Your task to perform on an android device: find snoozed emails in the gmail app Image 0: 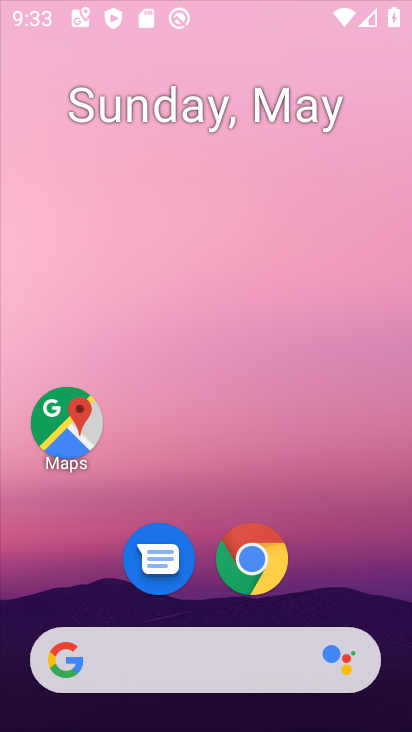
Step 0: press home button
Your task to perform on an android device: find snoozed emails in the gmail app Image 1: 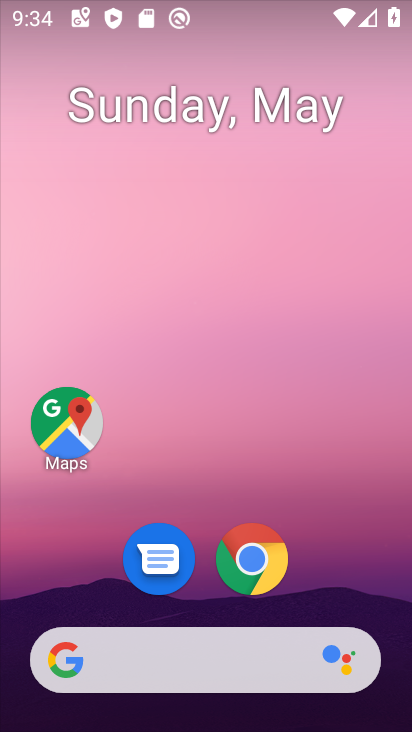
Step 1: drag from (343, 611) to (283, 114)
Your task to perform on an android device: find snoozed emails in the gmail app Image 2: 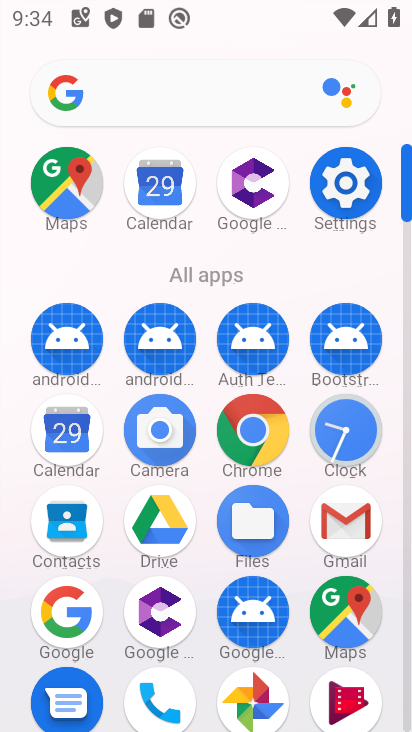
Step 2: click (340, 523)
Your task to perform on an android device: find snoozed emails in the gmail app Image 3: 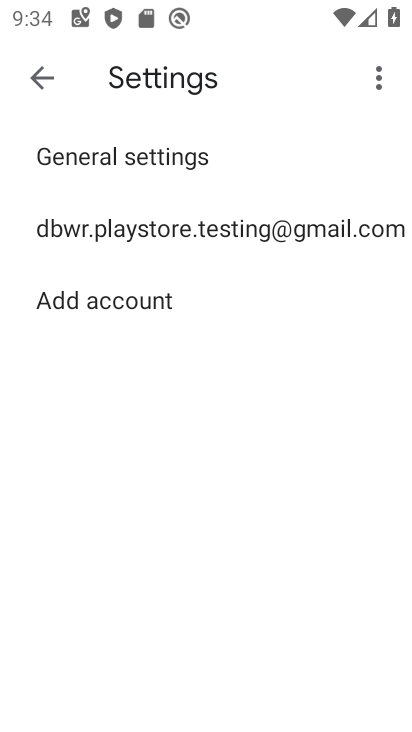
Step 3: click (40, 75)
Your task to perform on an android device: find snoozed emails in the gmail app Image 4: 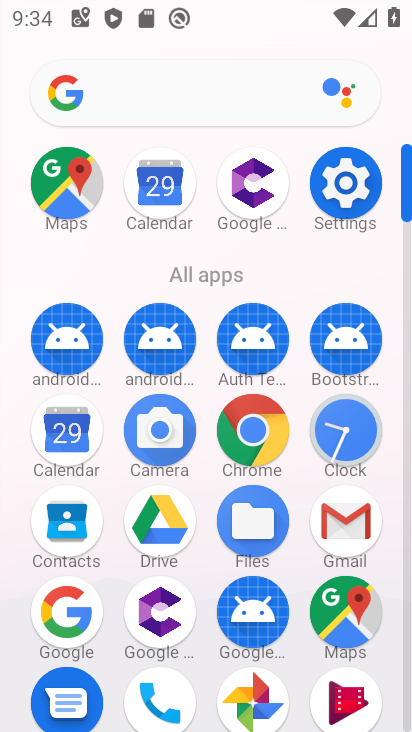
Step 4: click (353, 514)
Your task to perform on an android device: find snoozed emails in the gmail app Image 5: 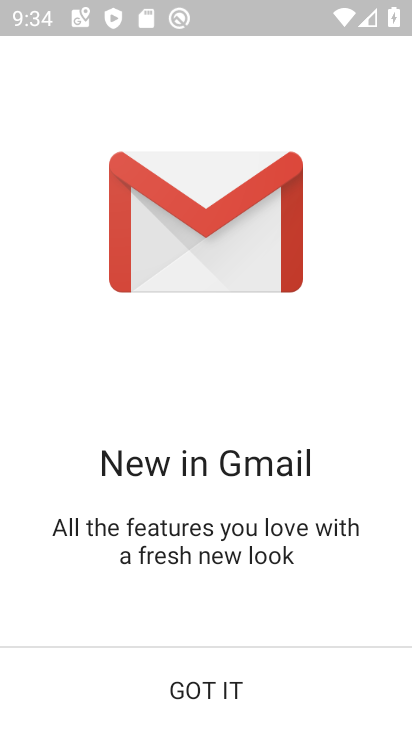
Step 5: click (173, 688)
Your task to perform on an android device: find snoozed emails in the gmail app Image 6: 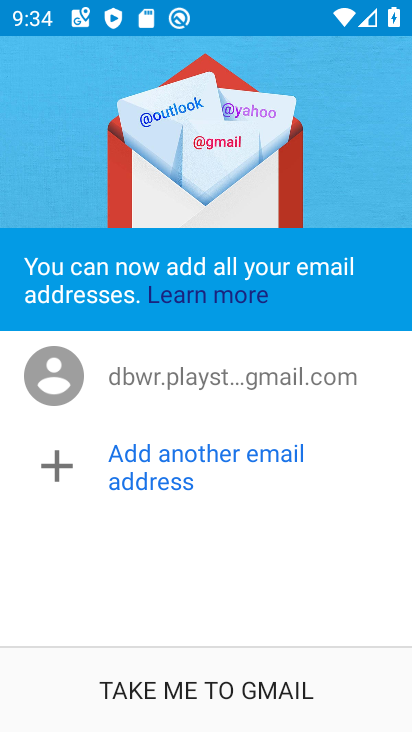
Step 6: click (240, 684)
Your task to perform on an android device: find snoozed emails in the gmail app Image 7: 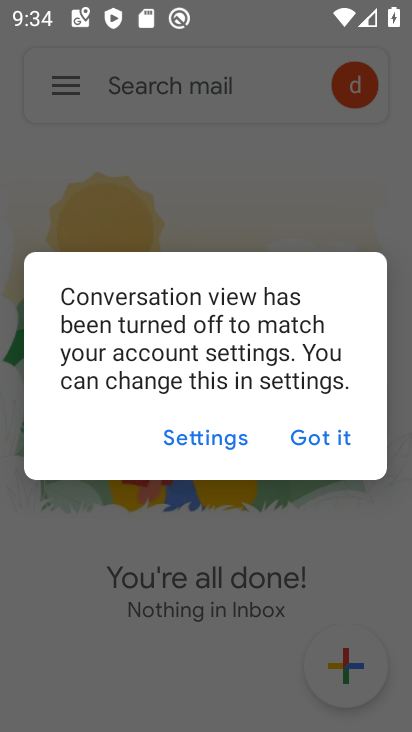
Step 7: click (337, 447)
Your task to perform on an android device: find snoozed emails in the gmail app Image 8: 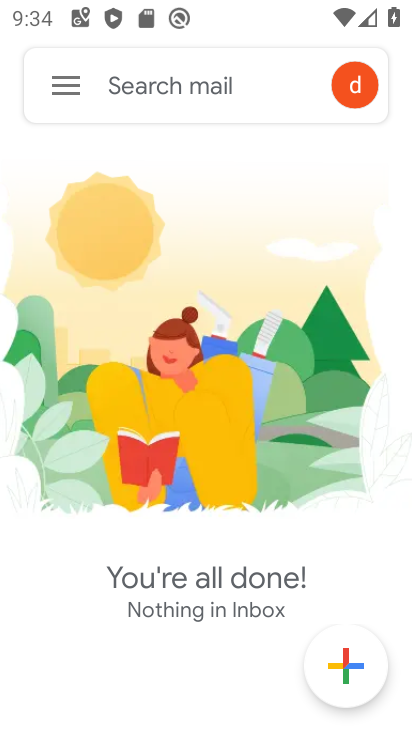
Step 8: click (54, 89)
Your task to perform on an android device: find snoozed emails in the gmail app Image 9: 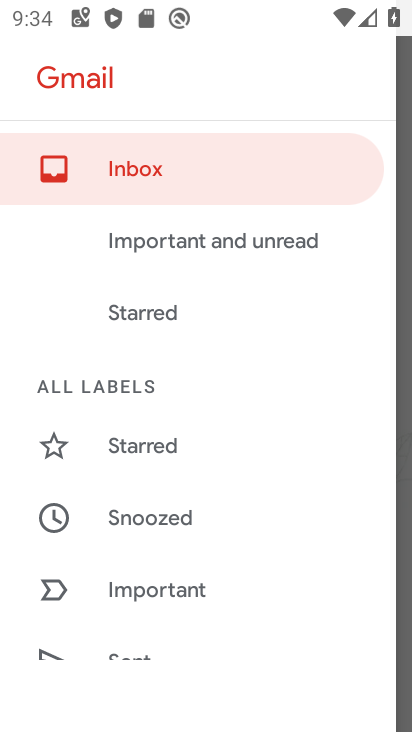
Step 9: click (158, 522)
Your task to perform on an android device: find snoozed emails in the gmail app Image 10: 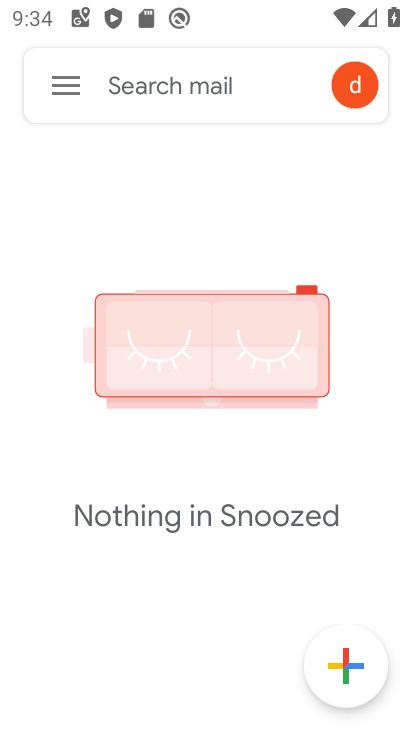
Step 10: task complete